Your task to perform on an android device: turn notification dots off Image 0: 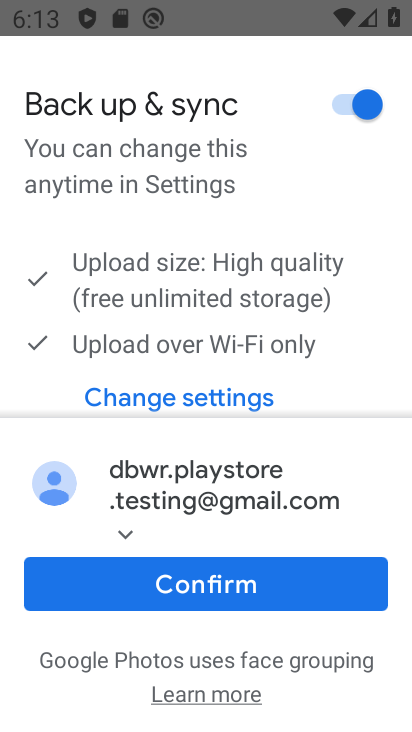
Step 0: press home button
Your task to perform on an android device: turn notification dots off Image 1: 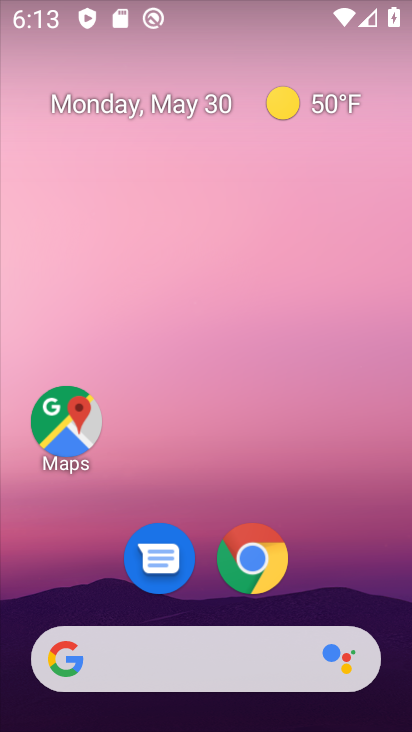
Step 1: drag from (347, 565) to (381, 131)
Your task to perform on an android device: turn notification dots off Image 2: 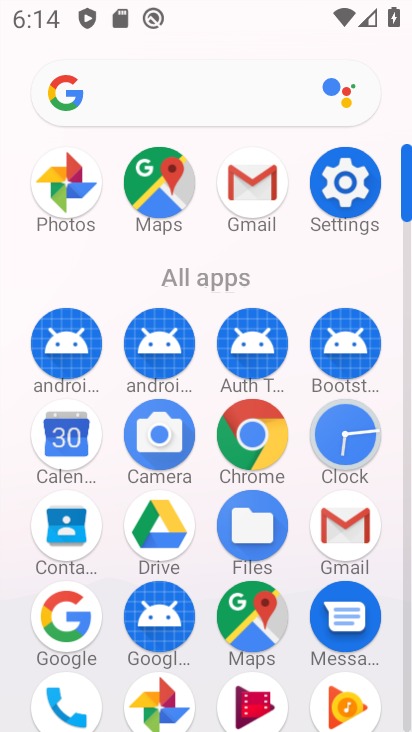
Step 2: click (327, 161)
Your task to perform on an android device: turn notification dots off Image 3: 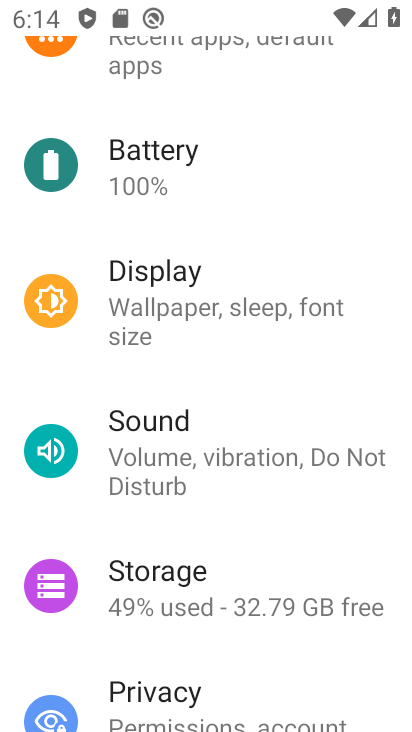
Step 3: drag from (255, 190) to (202, 714)
Your task to perform on an android device: turn notification dots off Image 4: 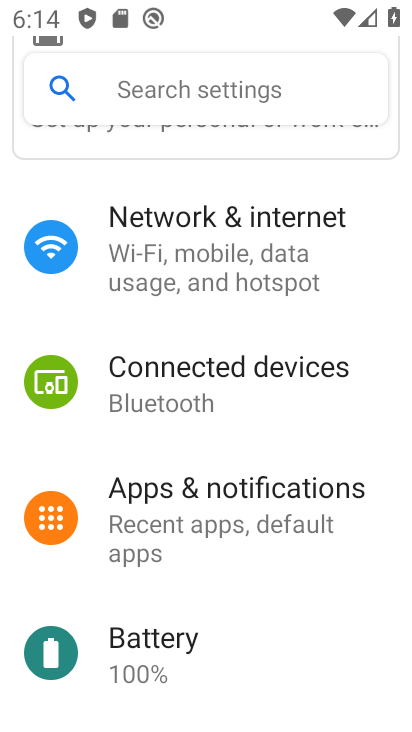
Step 4: click (211, 520)
Your task to perform on an android device: turn notification dots off Image 5: 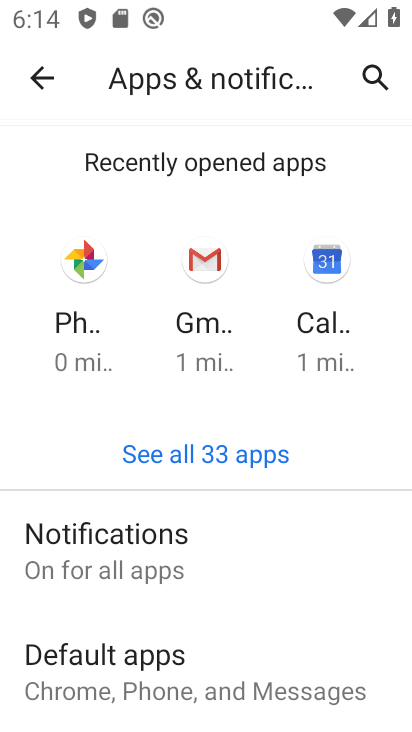
Step 5: click (136, 525)
Your task to perform on an android device: turn notification dots off Image 6: 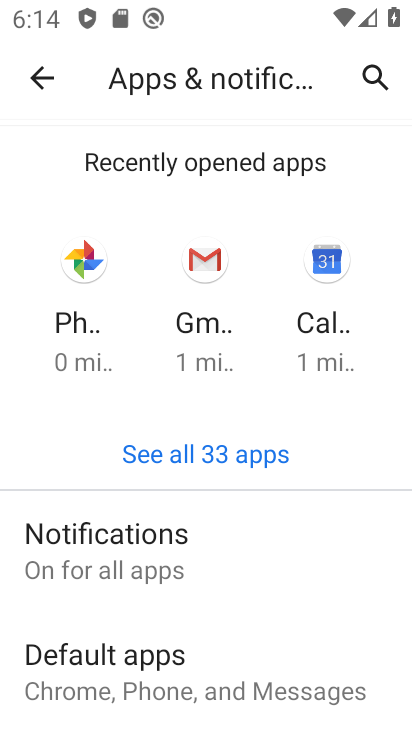
Step 6: drag from (222, 643) to (179, 83)
Your task to perform on an android device: turn notification dots off Image 7: 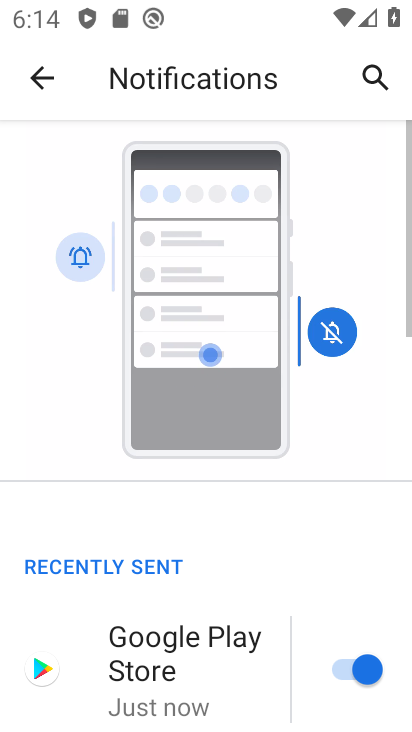
Step 7: drag from (188, 554) to (234, 16)
Your task to perform on an android device: turn notification dots off Image 8: 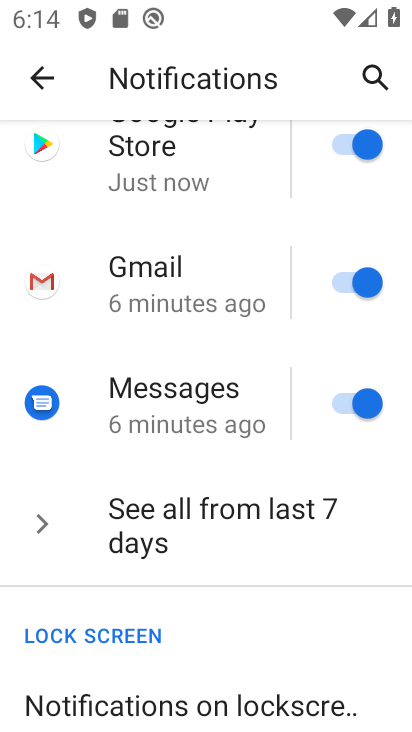
Step 8: drag from (237, 562) to (258, 66)
Your task to perform on an android device: turn notification dots off Image 9: 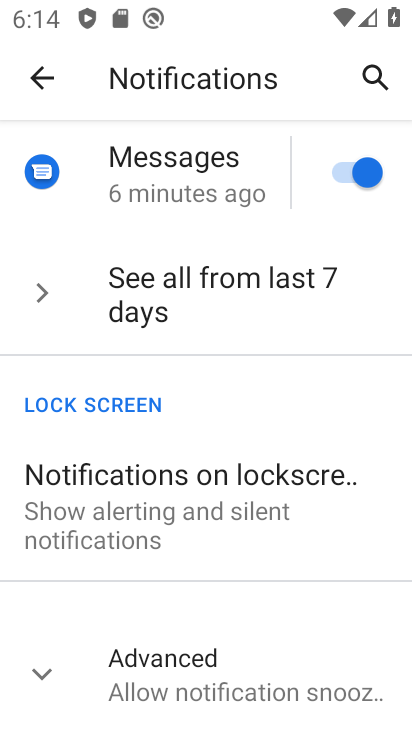
Step 9: click (171, 671)
Your task to perform on an android device: turn notification dots off Image 10: 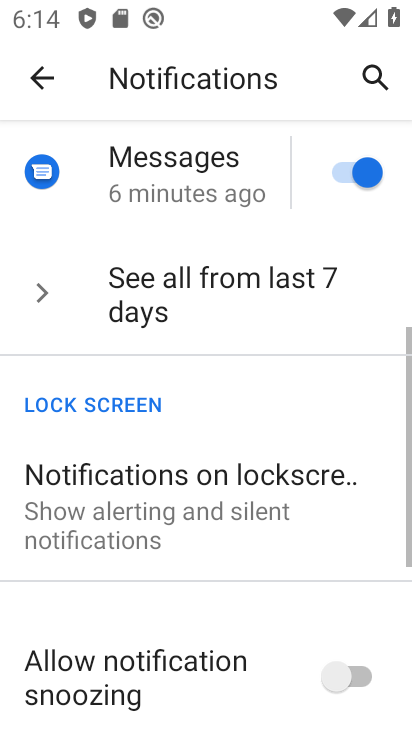
Step 10: drag from (233, 595) to (293, 107)
Your task to perform on an android device: turn notification dots off Image 11: 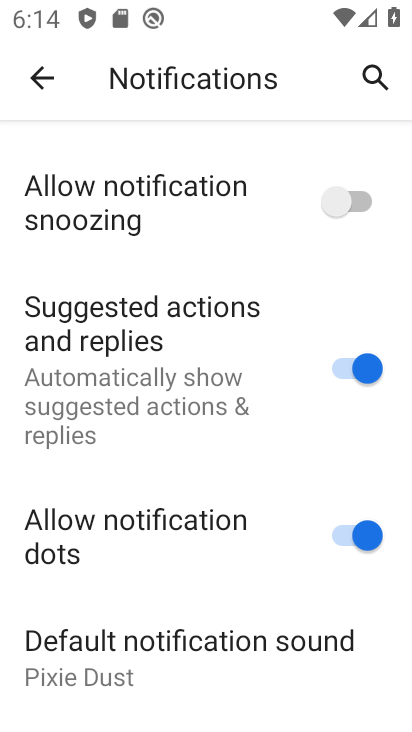
Step 11: drag from (208, 650) to (202, 531)
Your task to perform on an android device: turn notification dots off Image 12: 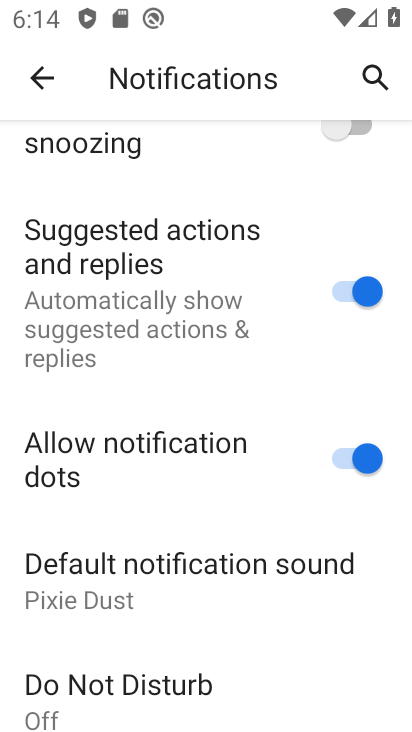
Step 12: drag from (260, 564) to (337, 357)
Your task to perform on an android device: turn notification dots off Image 13: 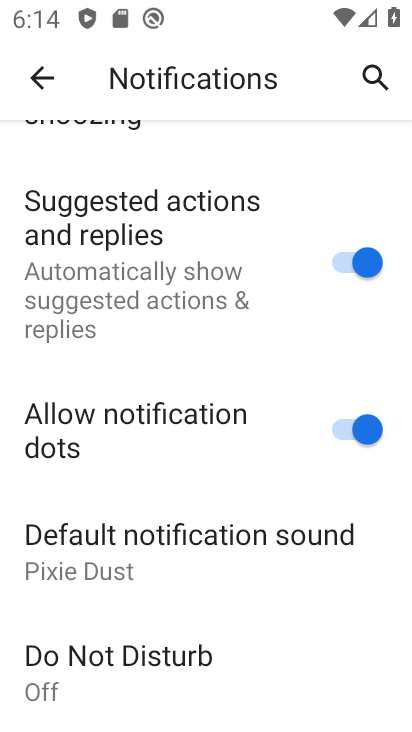
Step 13: drag from (313, 247) to (207, 569)
Your task to perform on an android device: turn notification dots off Image 14: 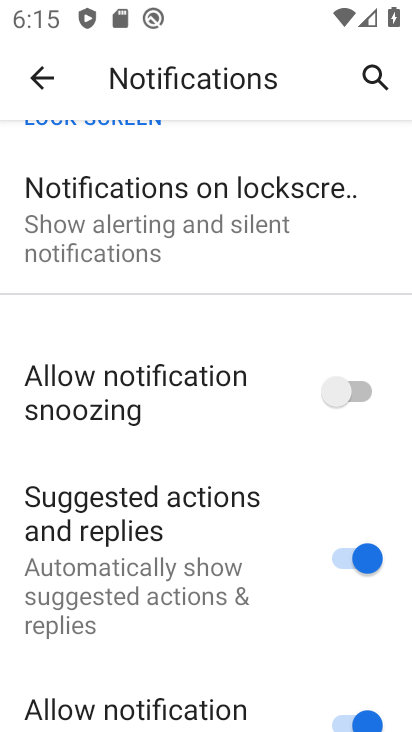
Step 14: drag from (202, 276) to (227, 141)
Your task to perform on an android device: turn notification dots off Image 15: 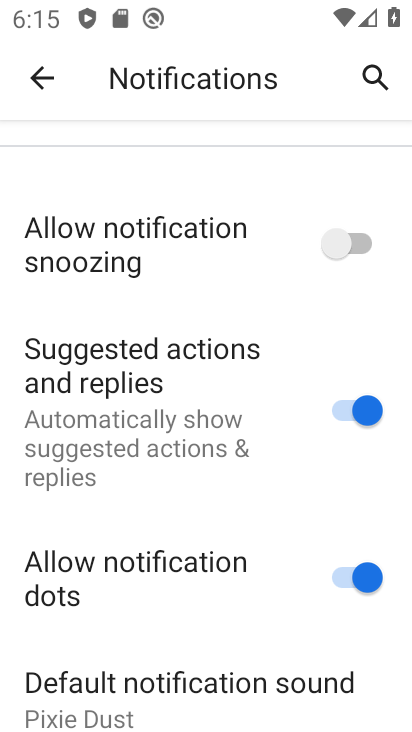
Step 15: click (255, 578)
Your task to perform on an android device: turn notification dots off Image 16: 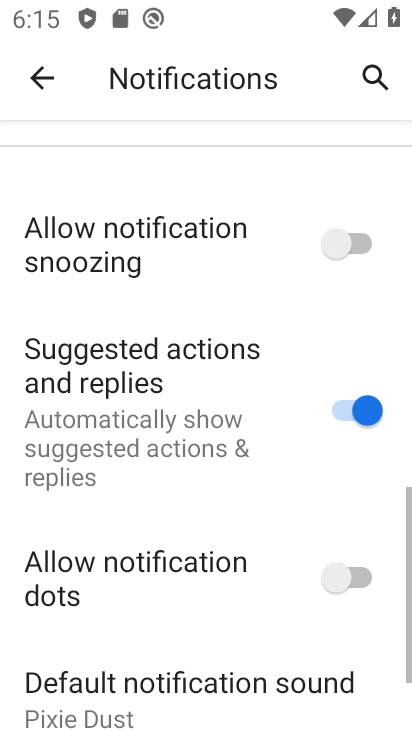
Step 16: task complete